Your task to perform on an android device: Go to settings Image 0: 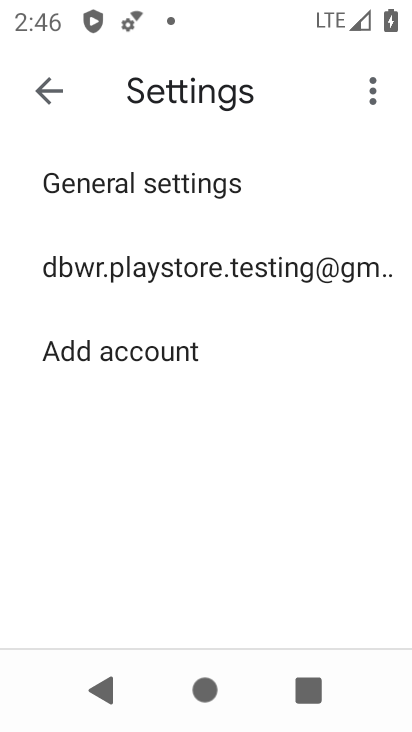
Step 0: press home button
Your task to perform on an android device: Go to settings Image 1: 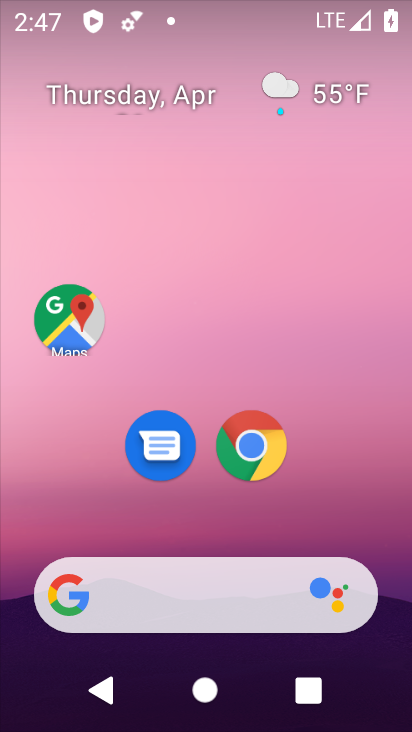
Step 1: drag from (318, 536) to (311, 59)
Your task to perform on an android device: Go to settings Image 2: 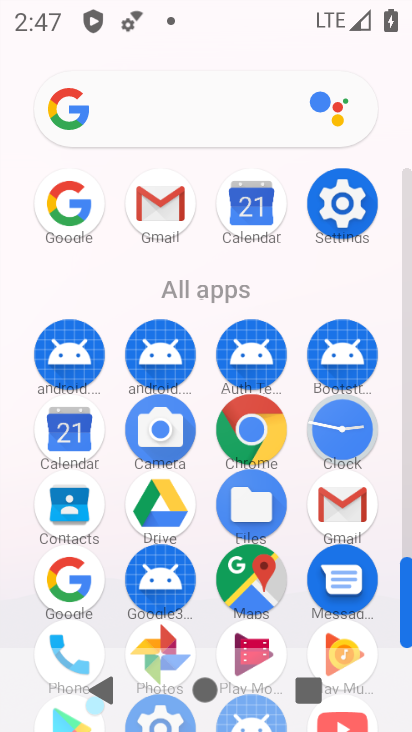
Step 2: click (347, 204)
Your task to perform on an android device: Go to settings Image 3: 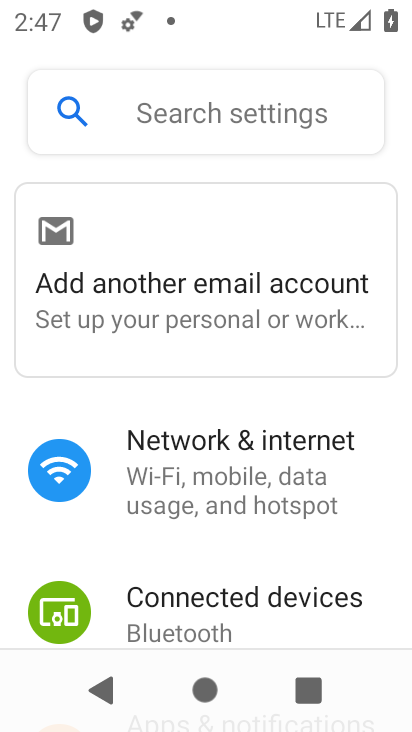
Step 3: task complete